Your task to perform on an android device: refresh tabs in the chrome app Image 0: 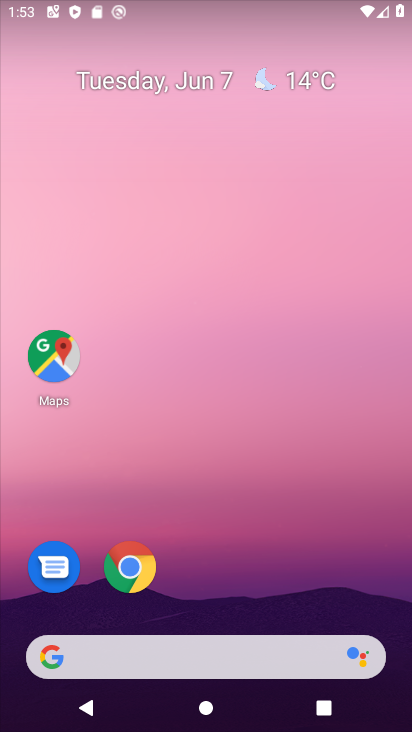
Step 0: drag from (259, 553) to (297, 1)
Your task to perform on an android device: refresh tabs in the chrome app Image 1: 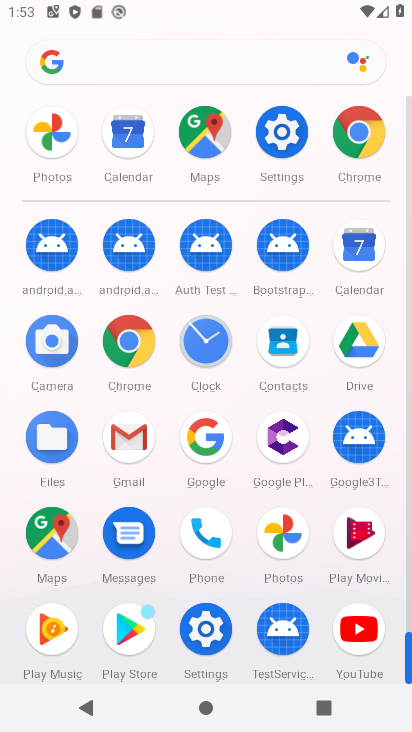
Step 1: click (351, 145)
Your task to perform on an android device: refresh tabs in the chrome app Image 2: 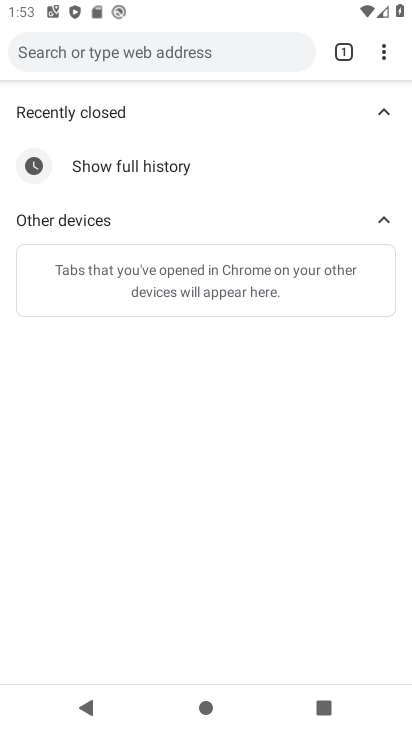
Step 2: click (389, 70)
Your task to perform on an android device: refresh tabs in the chrome app Image 3: 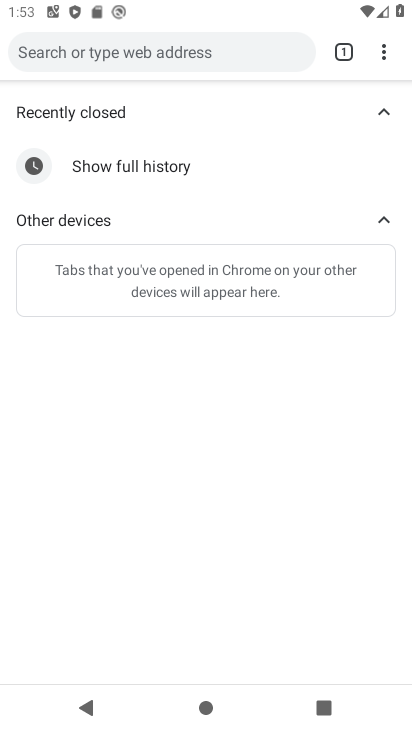
Step 3: task complete